Your task to perform on an android device: Go to CNN.com Image 0: 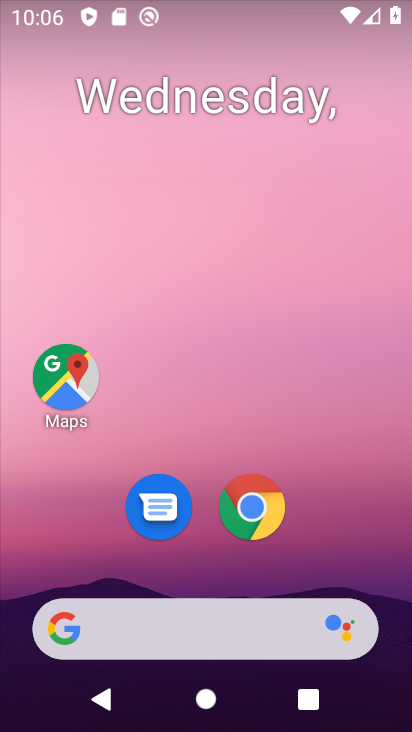
Step 0: drag from (239, 669) to (257, 132)
Your task to perform on an android device: Go to CNN.com Image 1: 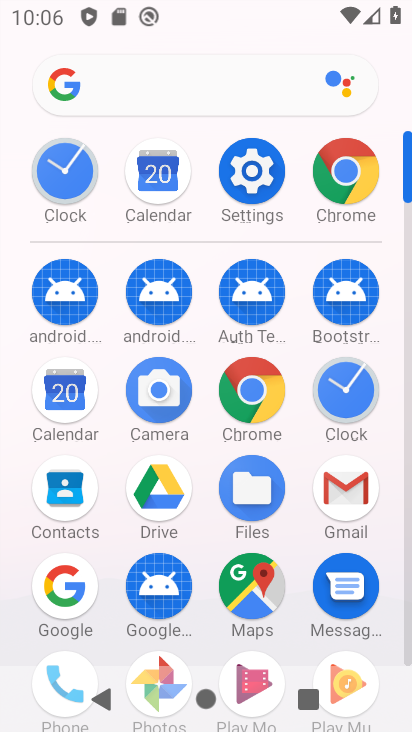
Step 1: click (245, 393)
Your task to perform on an android device: Go to CNN.com Image 2: 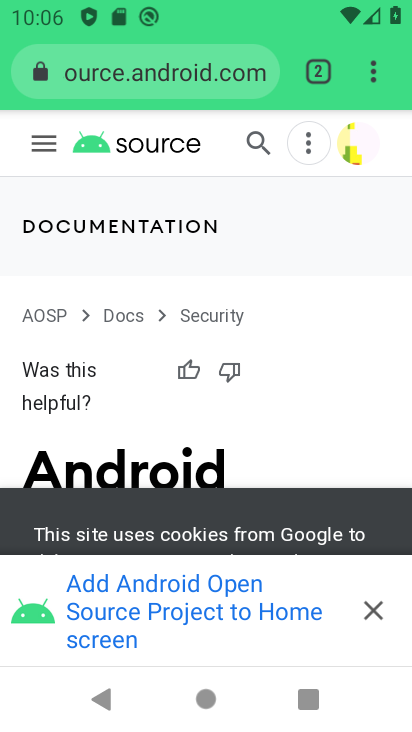
Step 2: click (315, 68)
Your task to perform on an android device: Go to CNN.com Image 3: 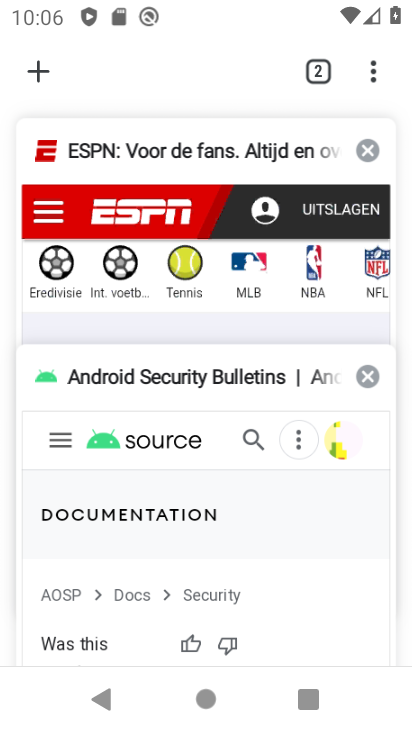
Step 3: click (30, 66)
Your task to perform on an android device: Go to CNN.com Image 4: 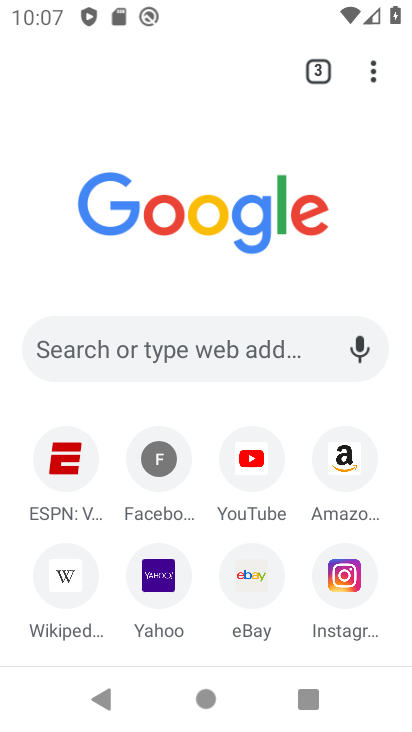
Step 4: click (149, 345)
Your task to perform on an android device: Go to CNN.com Image 5: 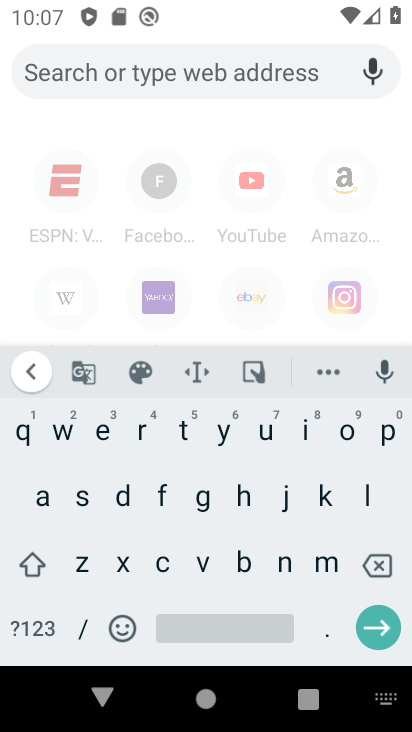
Step 5: click (160, 562)
Your task to perform on an android device: Go to CNN.com Image 6: 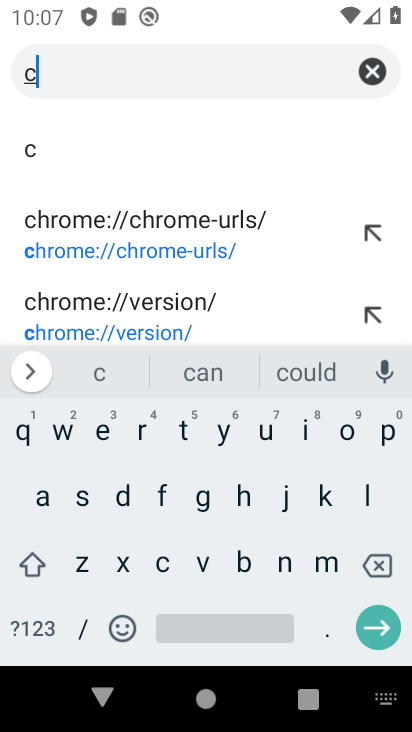
Step 6: click (281, 561)
Your task to perform on an android device: Go to CNN.com Image 7: 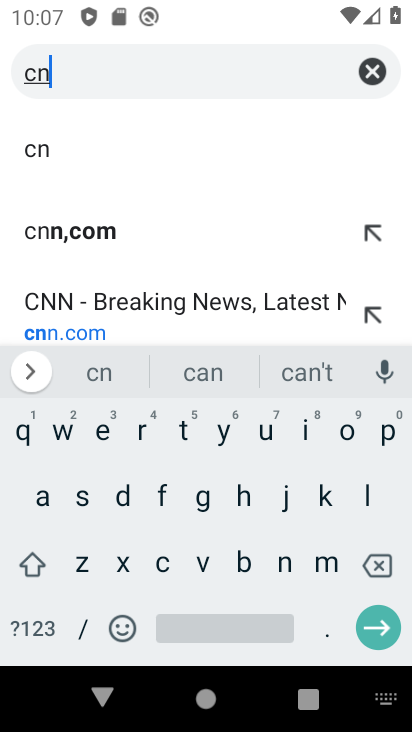
Step 7: click (283, 563)
Your task to perform on an android device: Go to CNN.com Image 8: 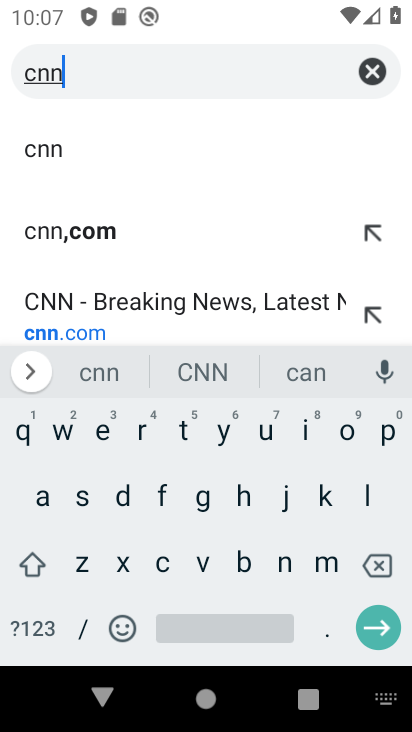
Step 8: click (327, 632)
Your task to perform on an android device: Go to CNN.com Image 9: 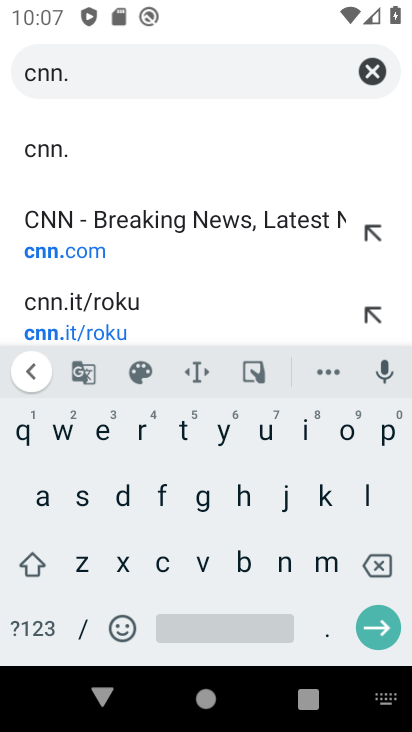
Step 9: click (157, 562)
Your task to perform on an android device: Go to CNN.com Image 10: 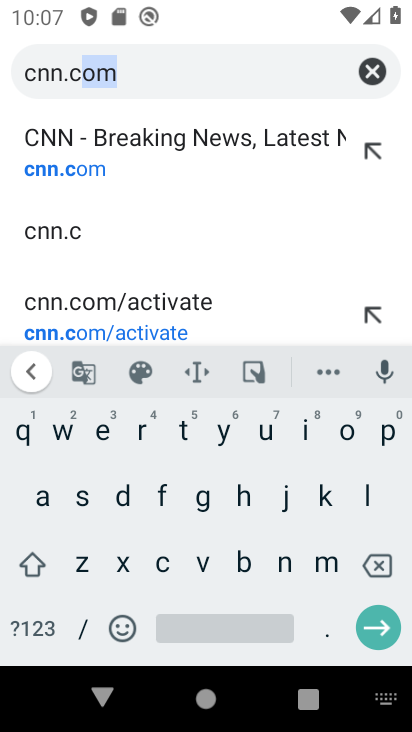
Step 10: click (152, 79)
Your task to perform on an android device: Go to CNN.com Image 11: 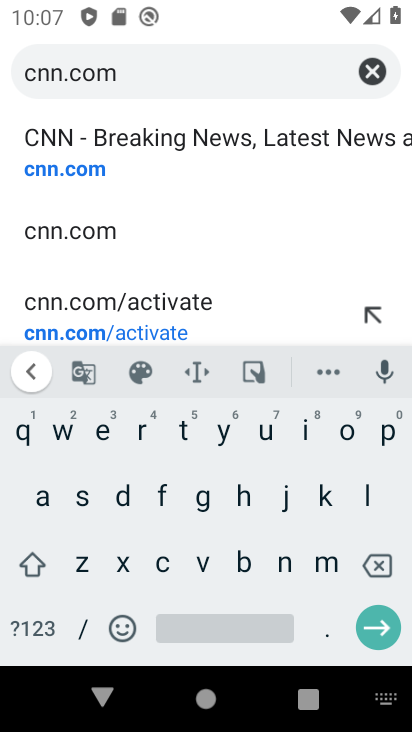
Step 11: click (383, 634)
Your task to perform on an android device: Go to CNN.com Image 12: 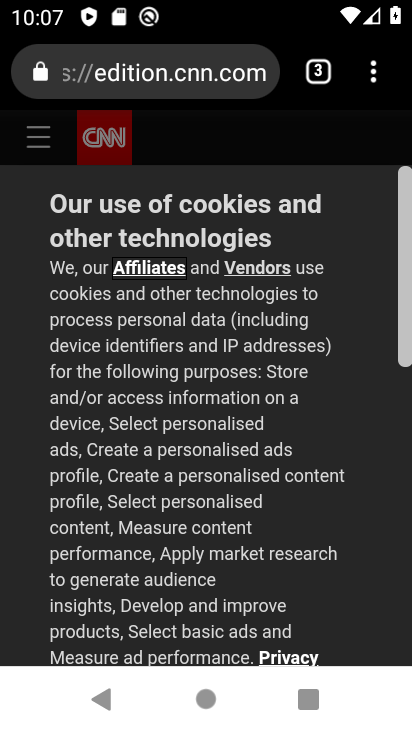
Step 12: drag from (327, 592) to (348, 429)
Your task to perform on an android device: Go to CNN.com Image 13: 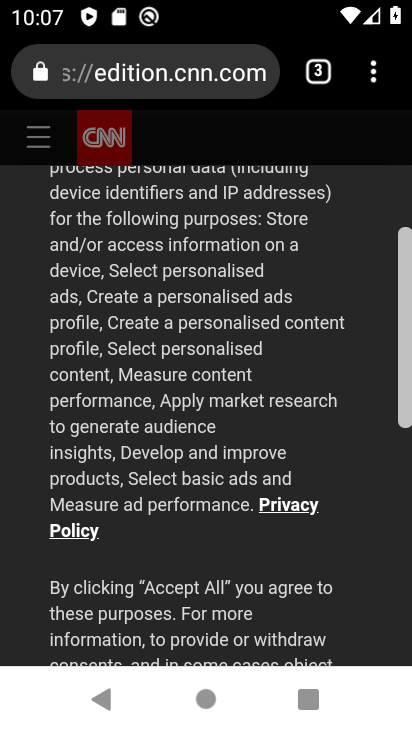
Step 13: drag from (274, 509) to (343, 237)
Your task to perform on an android device: Go to CNN.com Image 14: 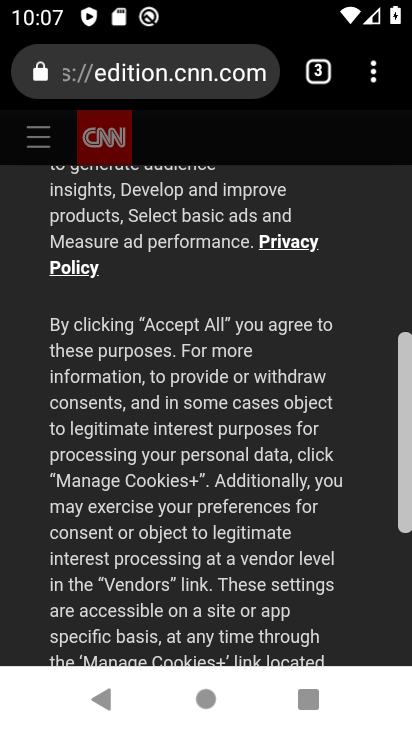
Step 14: drag from (188, 555) to (280, 271)
Your task to perform on an android device: Go to CNN.com Image 15: 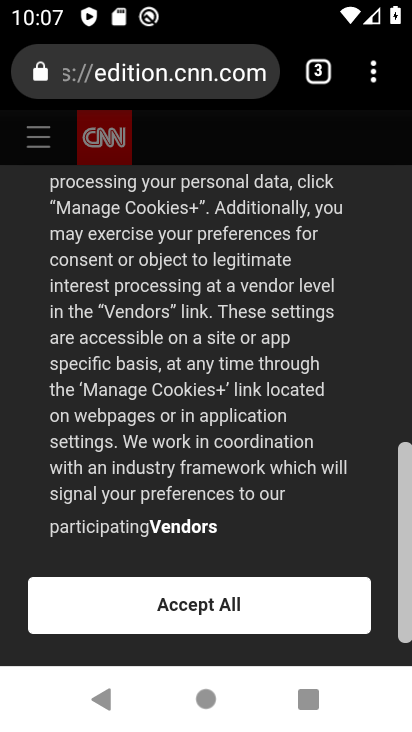
Step 15: click (144, 604)
Your task to perform on an android device: Go to CNN.com Image 16: 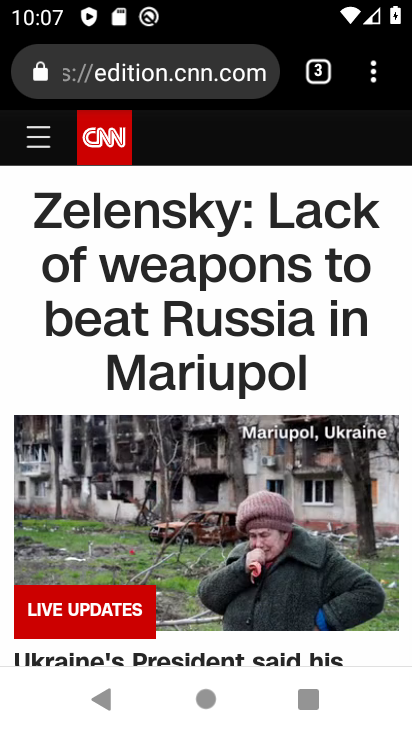
Step 16: task complete